Your task to perform on an android device: What's the weather going to be this weekend? Image 0: 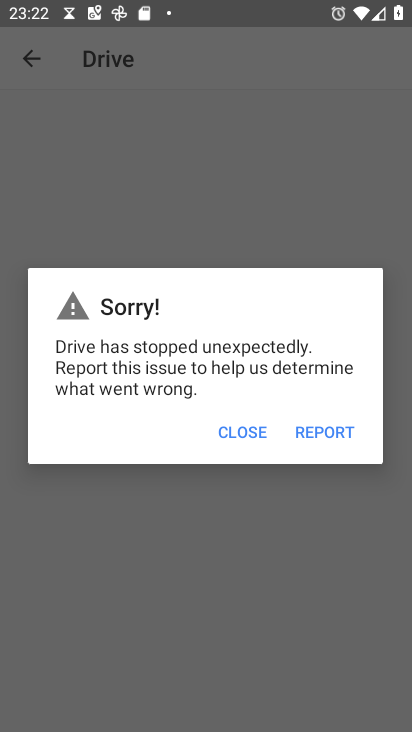
Step 0: press home button
Your task to perform on an android device: What's the weather going to be this weekend? Image 1: 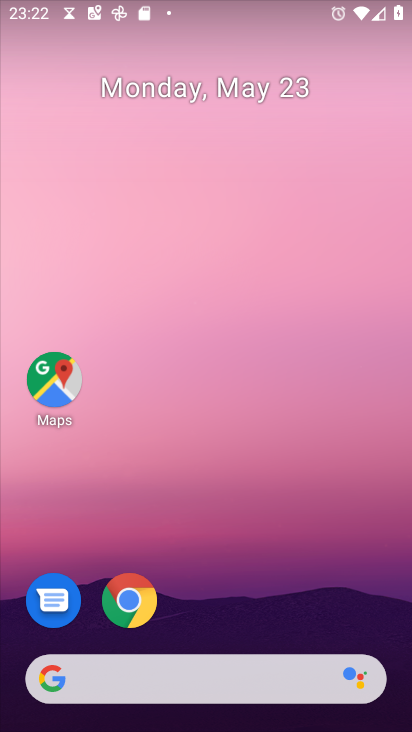
Step 1: drag from (239, 664) to (184, 183)
Your task to perform on an android device: What's the weather going to be this weekend? Image 2: 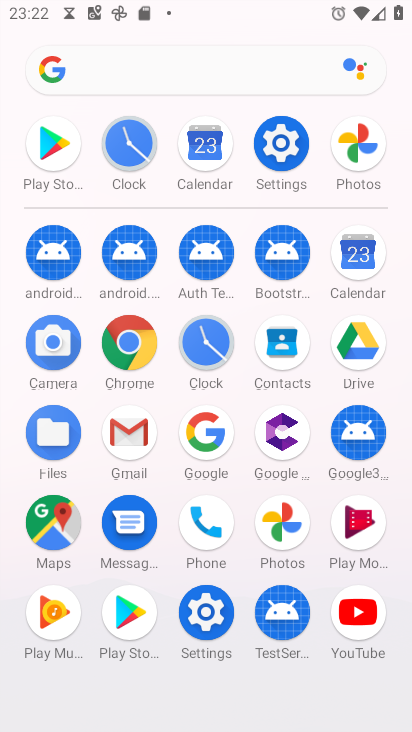
Step 2: click (202, 431)
Your task to perform on an android device: What's the weather going to be this weekend? Image 3: 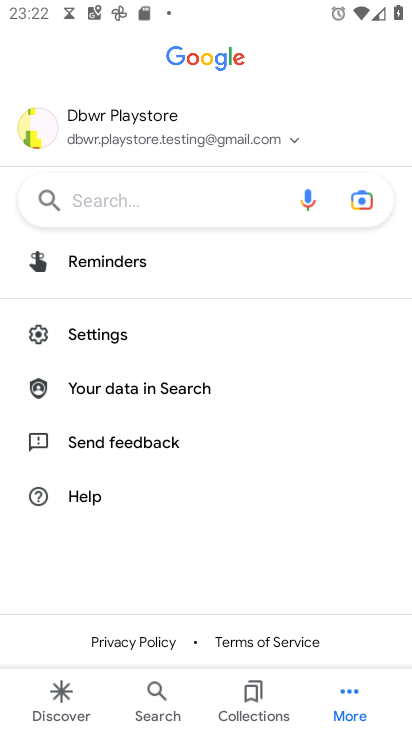
Step 3: click (54, 702)
Your task to perform on an android device: What's the weather going to be this weekend? Image 4: 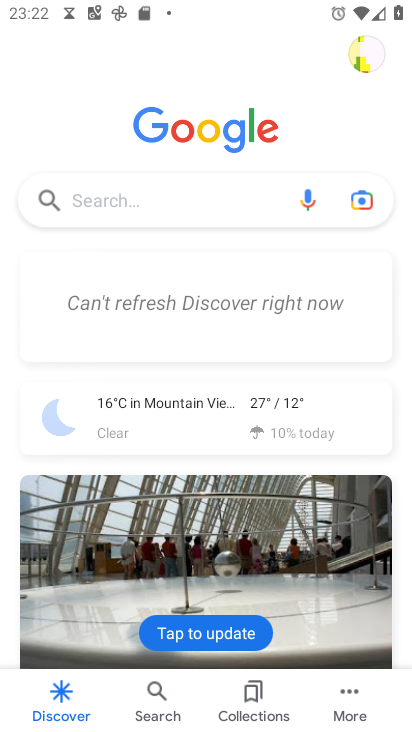
Step 4: click (186, 405)
Your task to perform on an android device: What's the weather going to be this weekend? Image 5: 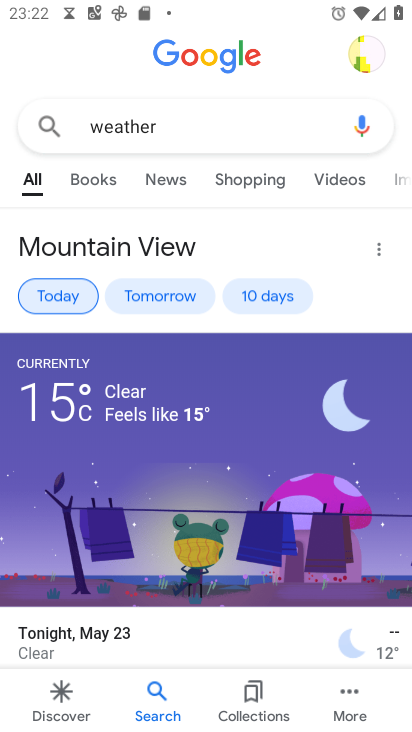
Step 5: click (279, 295)
Your task to perform on an android device: What's the weather going to be this weekend? Image 6: 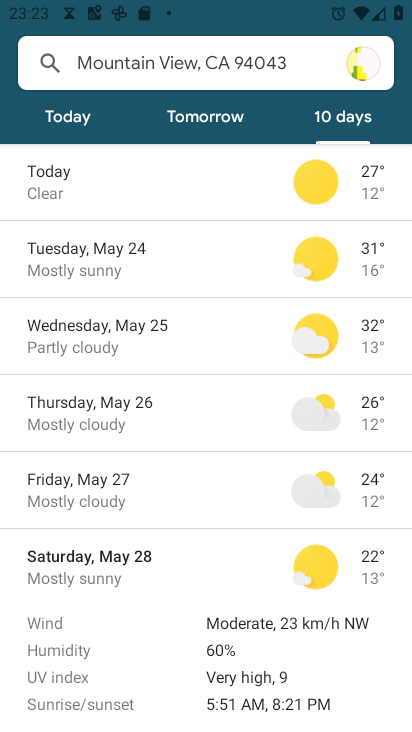
Step 6: task complete